Your task to perform on an android device: check the backup settings in the google photos Image 0: 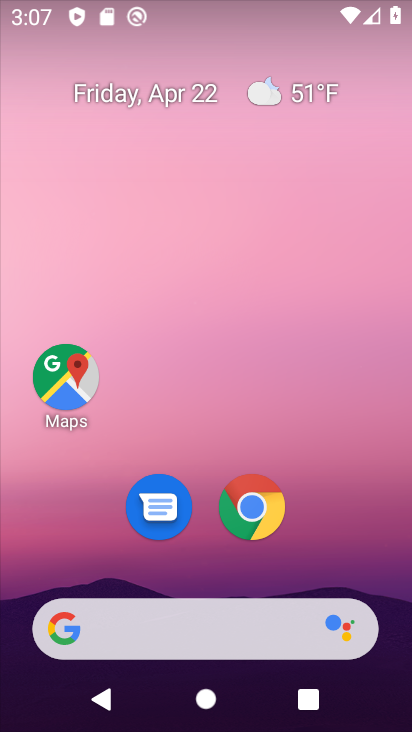
Step 0: drag from (202, 590) to (201, 5)
Your task to perform on an android device: check the backup settings in the google photos Image 1: 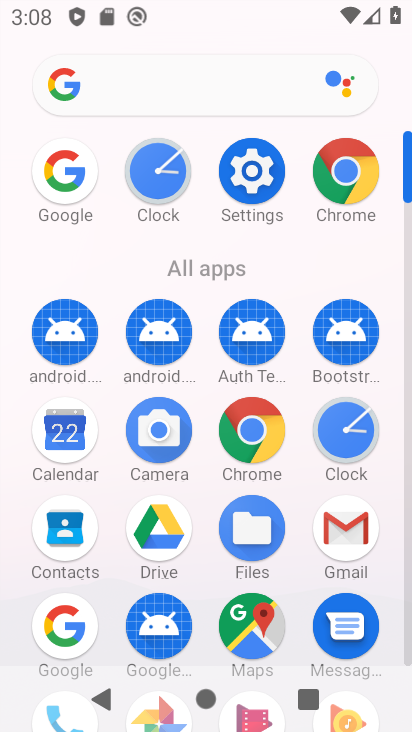
Step 1: drag from (180, 601) to (178, 89)
Your task to perform on an android device: check the backup settings in the google photos Image 2: 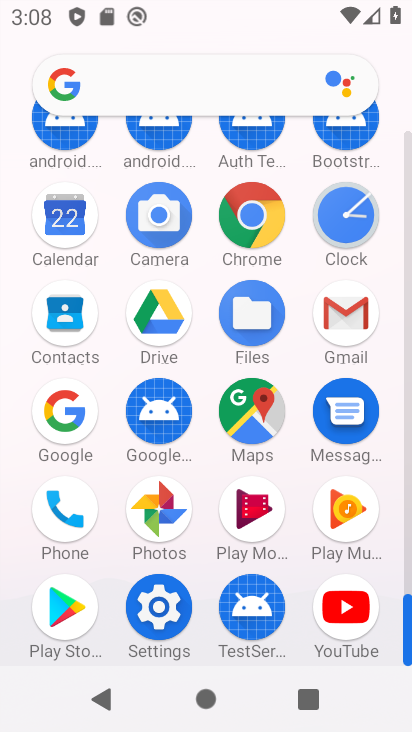
Step 2: click (173, 494)
Your task to perform on an android device: check the backup settings in the google photos Image 3: 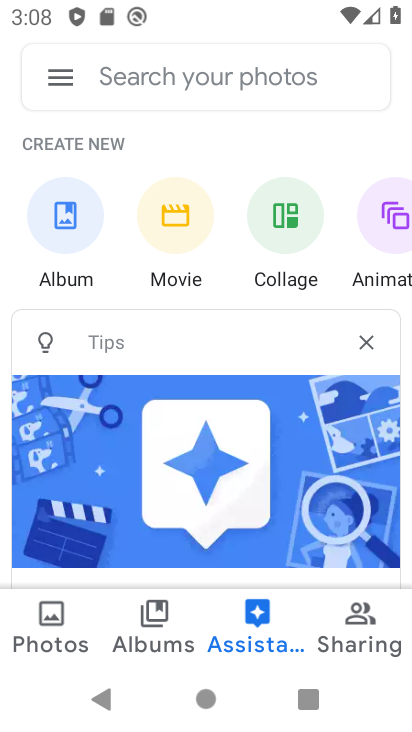
Step 3: click (57, 77)
Your task to perform on an android device: check the backup settings in the google photos Image 4: 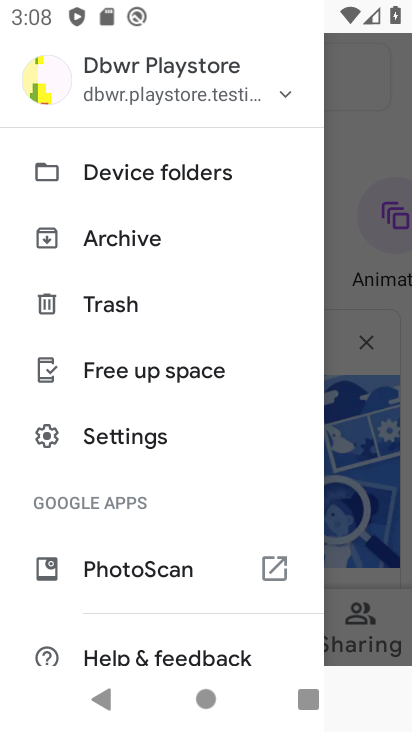
Step 4: click (145, 437)
Your task to perform on an android device: check the backup settings in the google photos Image 5: 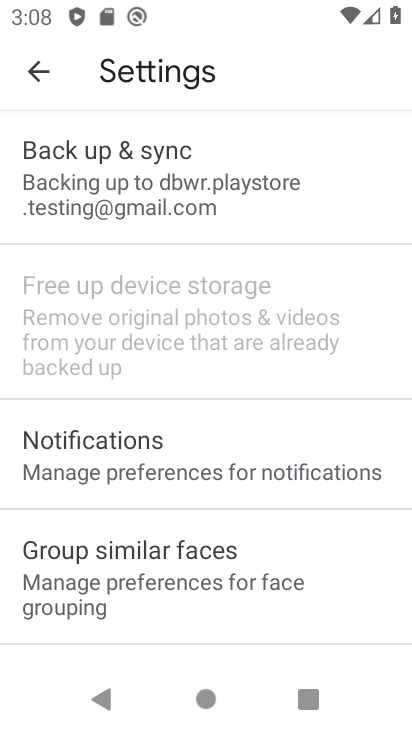
Step 5: click (109, 182)
Your task to perform on an android device: check the backup settings in the google photos Image 6: 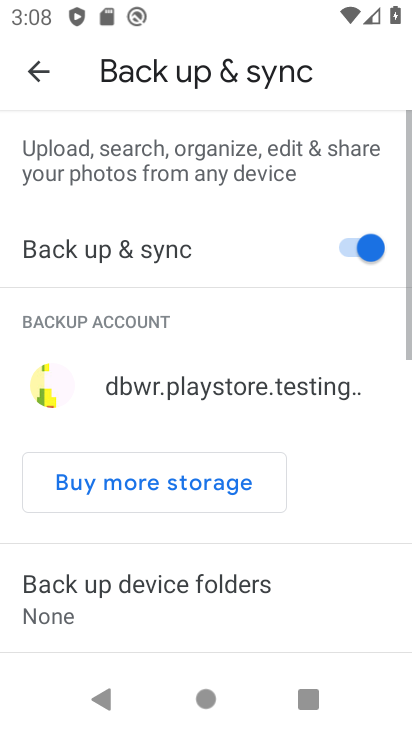
Step 6: drag from (211, 471) to (212, 167)
Your task to perform on an android device: check the backup settings in the google photos Image 7: 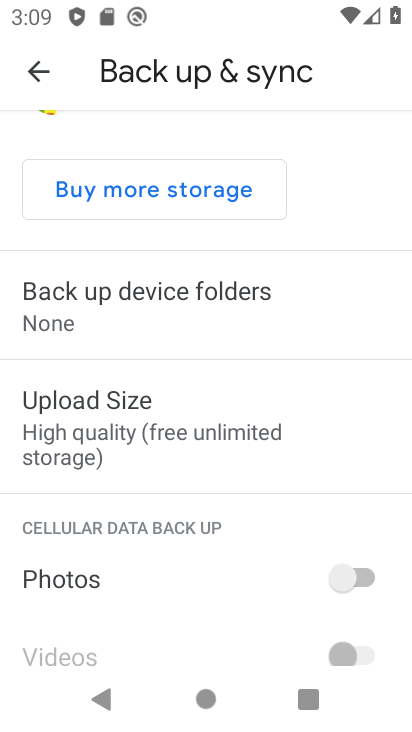
Step 7: click (233, 294)
Your task to perform on an android device: check the backup settings in the google photos Image 8: 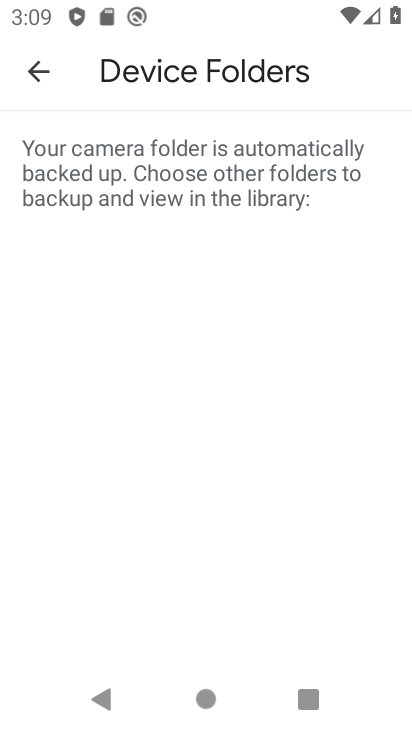
Step 8: task complete